Your task to perform on an android device: toggle wifi Image 0: 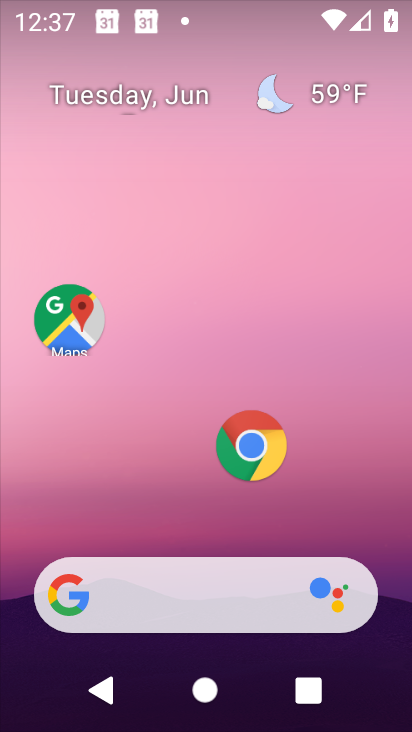
Step 0: drag from (259, 4) to (204, 624)
Your task to perform on an android device: toggle wifi Image 1: 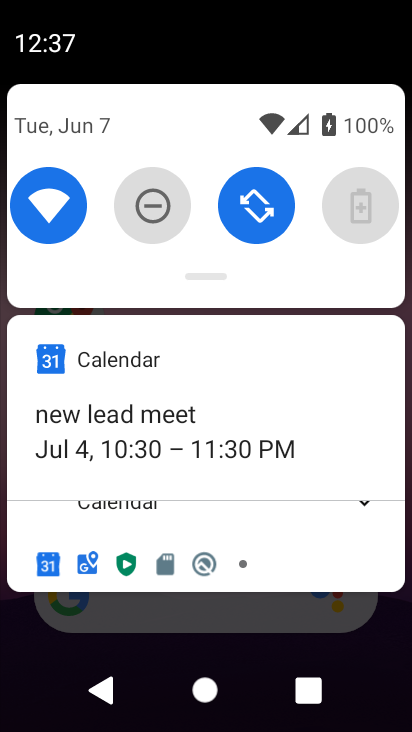
Step 1: click (50, 219)
Your task to perform on an android device: toggle wifi Image 2: 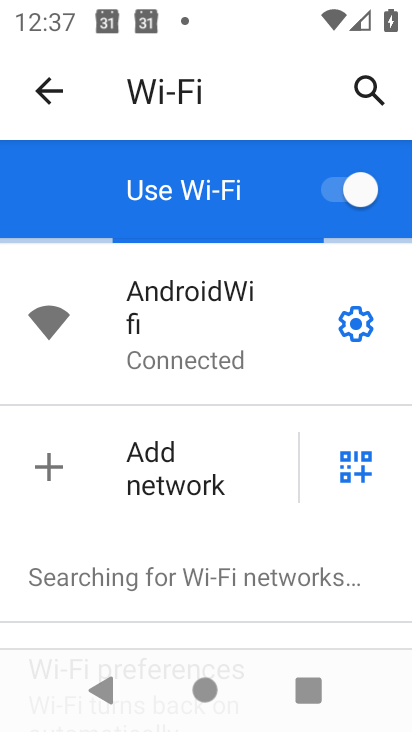
Step 2: task complete